Your task to perform on an android device: Open Android settings Image 0: 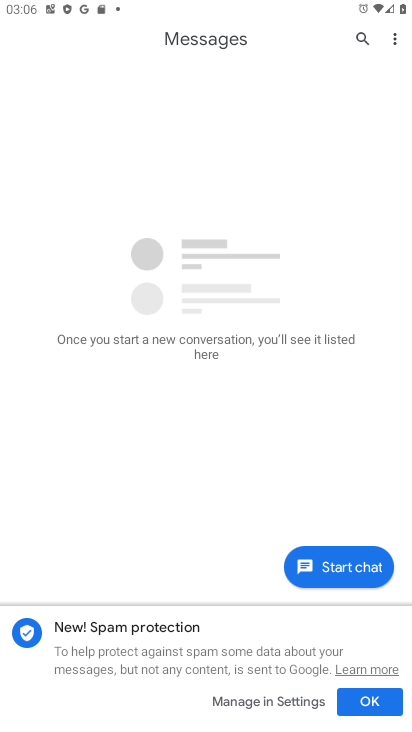
Step 0: press home button
Your task to perform on an android device: Open Android settings Image 1: 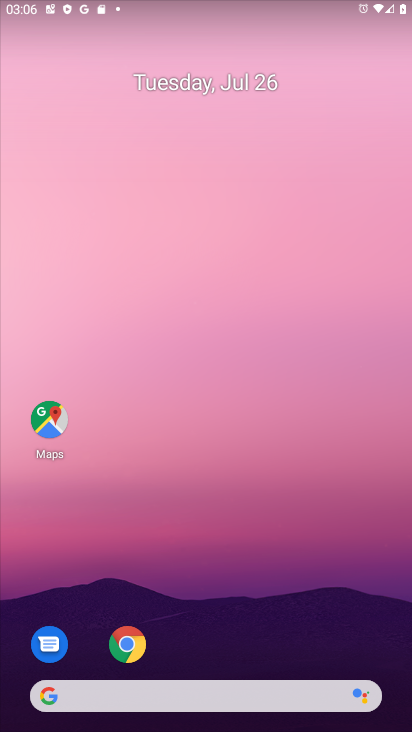
Step 1: drag from (207, 663) to (122, 112)
Your task to perform on an android device: Open Android settings Image 2: 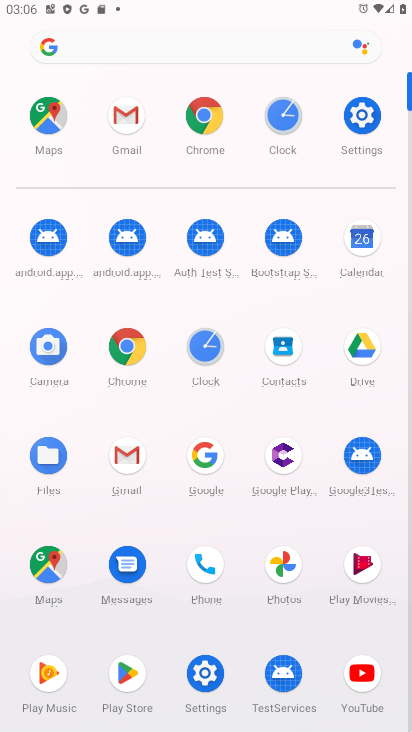
Step 2: click (214, 661)
Your task to perform on an android device: Open Android settings Image 3: 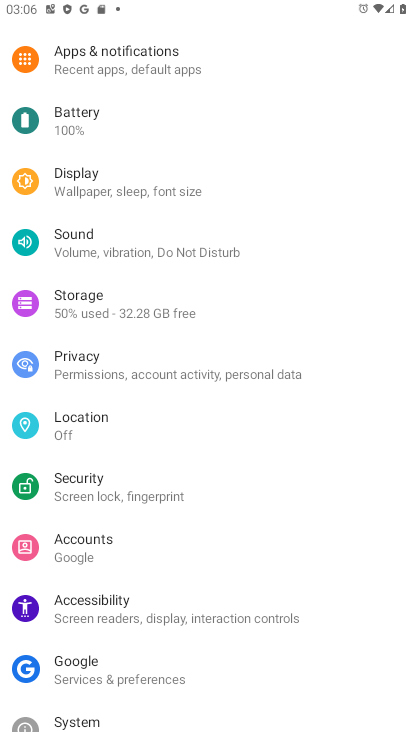
Step 3: task complete